Your task to perform on an android device: snooze an email in the gmail app Image 0: 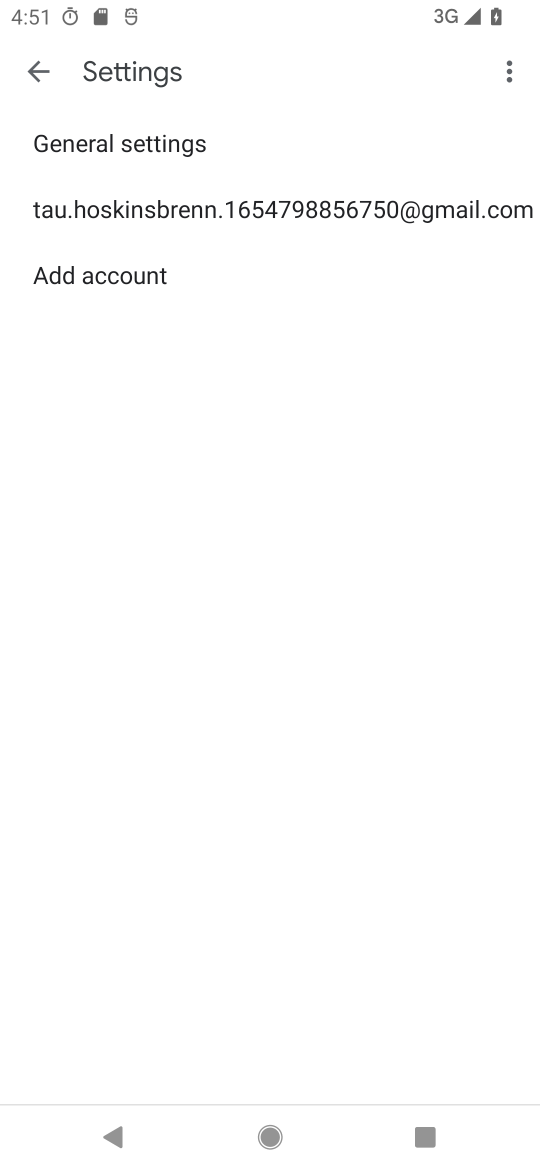
Step 0: press home button
Your task to perform on an android device: snooze an email in the gmail app Image 1: 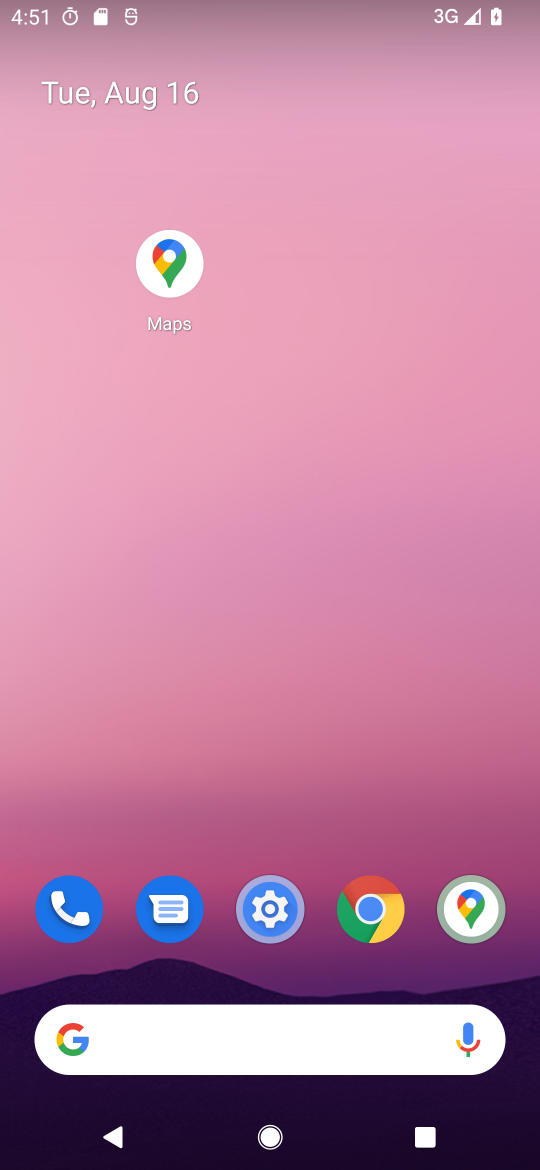
Step 1: drag from (263, 650) to (279, 79)
Your task to perform on an android device: snooze an email in the gmail app Image 2: 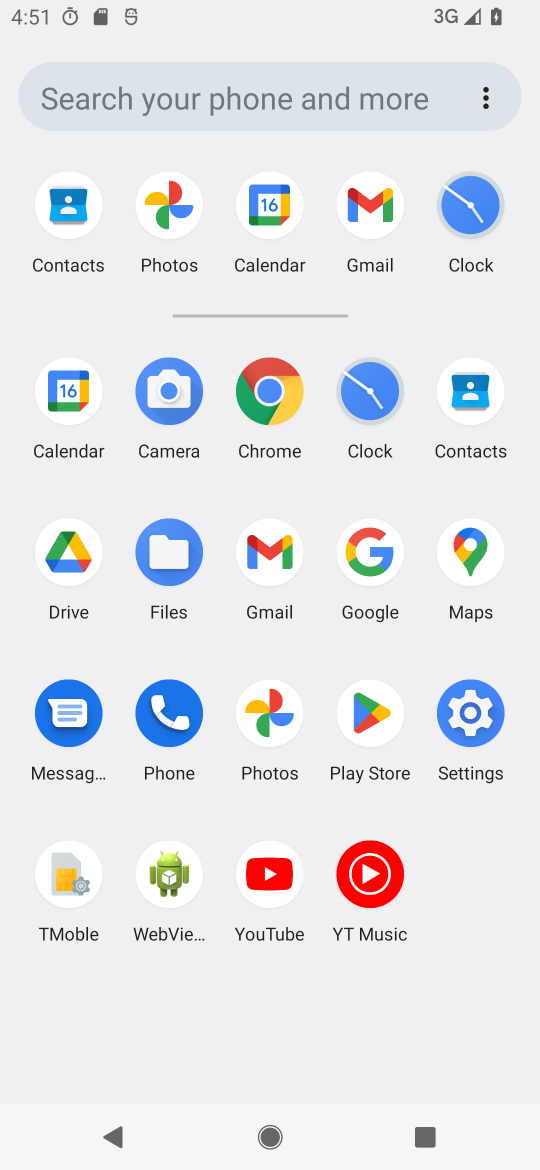
Step 2: click (369, 203)
Your task to perform on an android device: snooze an email in the gmail app Image 3: 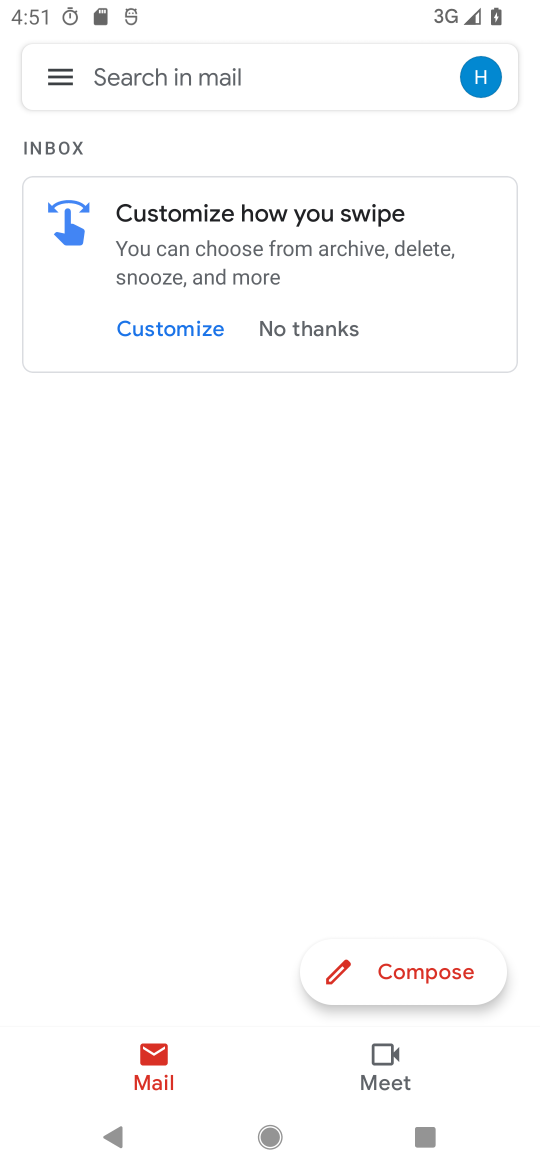
Step 3: click (51, 77)
Your task to perform on an android device: snooze an email in the gmail app Image 4: 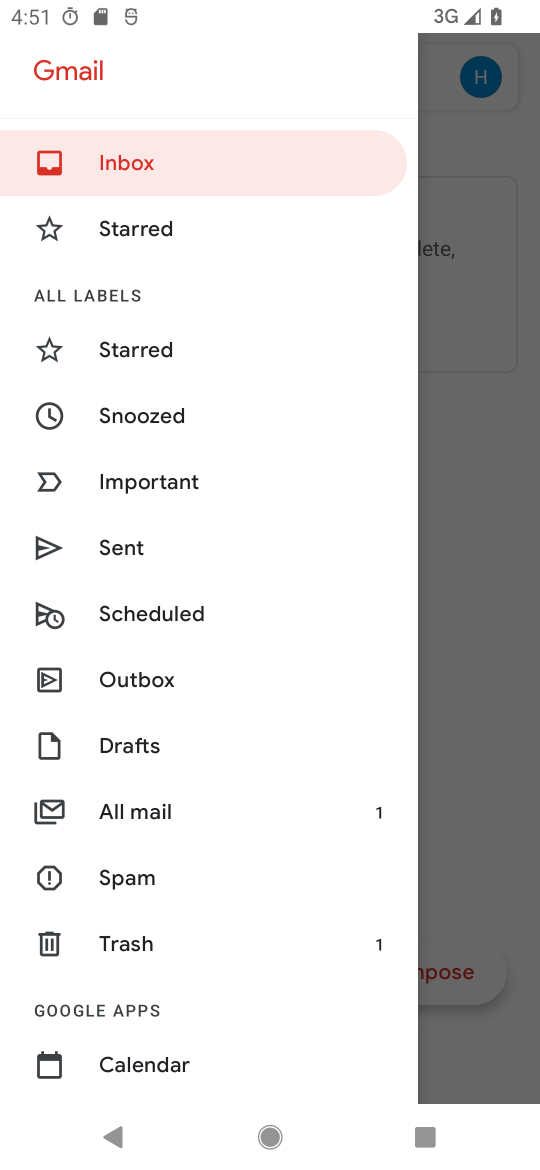
Step 4: click (186, 811)
Your task to perform on an android device: snooze an email in the gmail app Image 5: 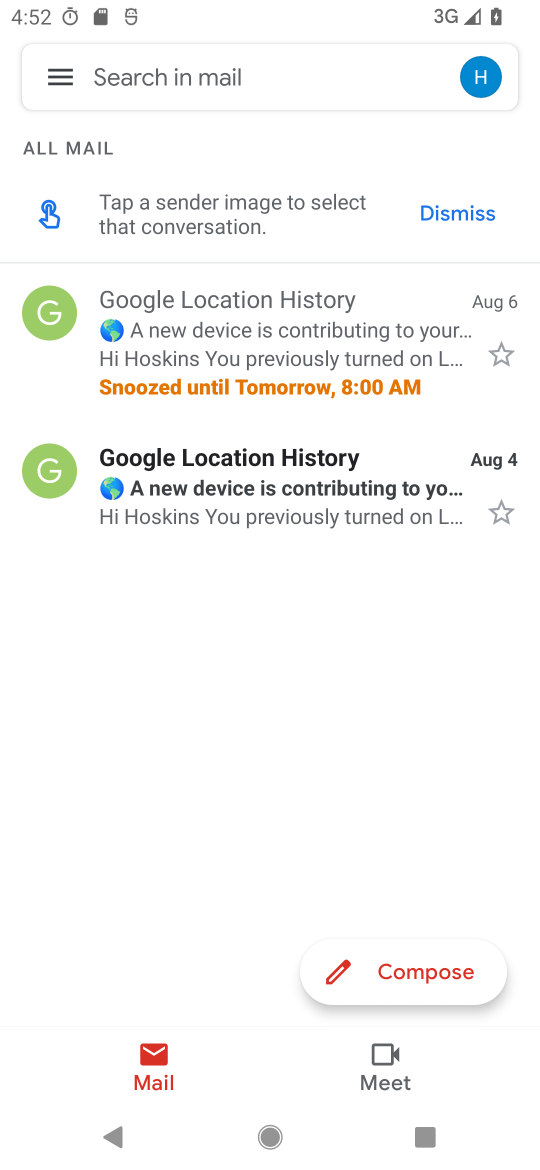
Step 5: click (355, 305)
Your task to perform on an android device: snooze an email in the gmail app Image 6: 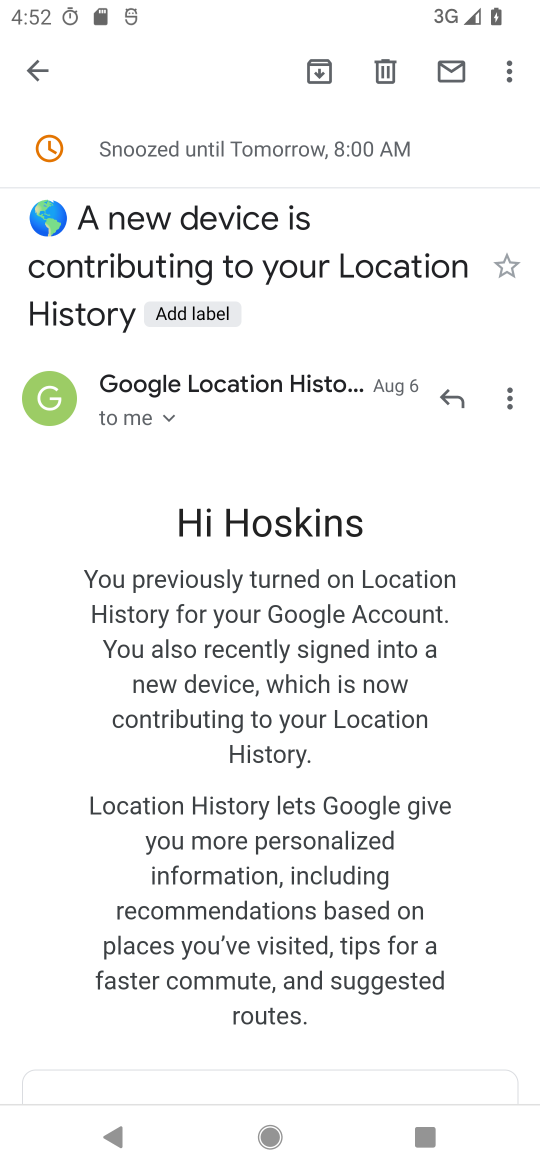
Step 6: click (506, 60)
Your task to perform on an android device: snooze an email in the gmail app Image 7: 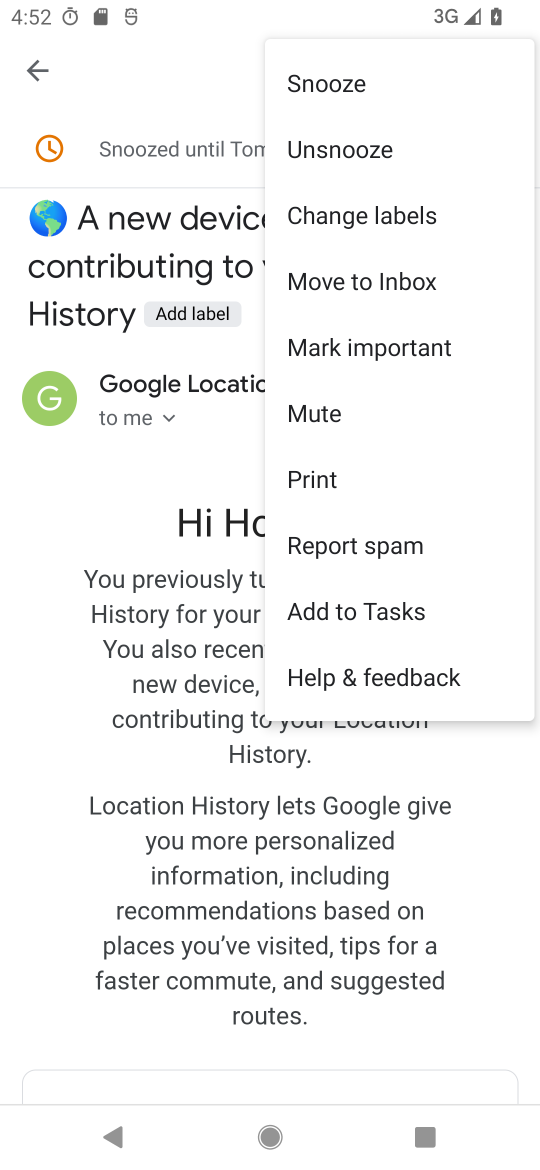
Step 7: click (379, 81)
Your task to perform on an android device: snooze an email in the gmail app Image 8: 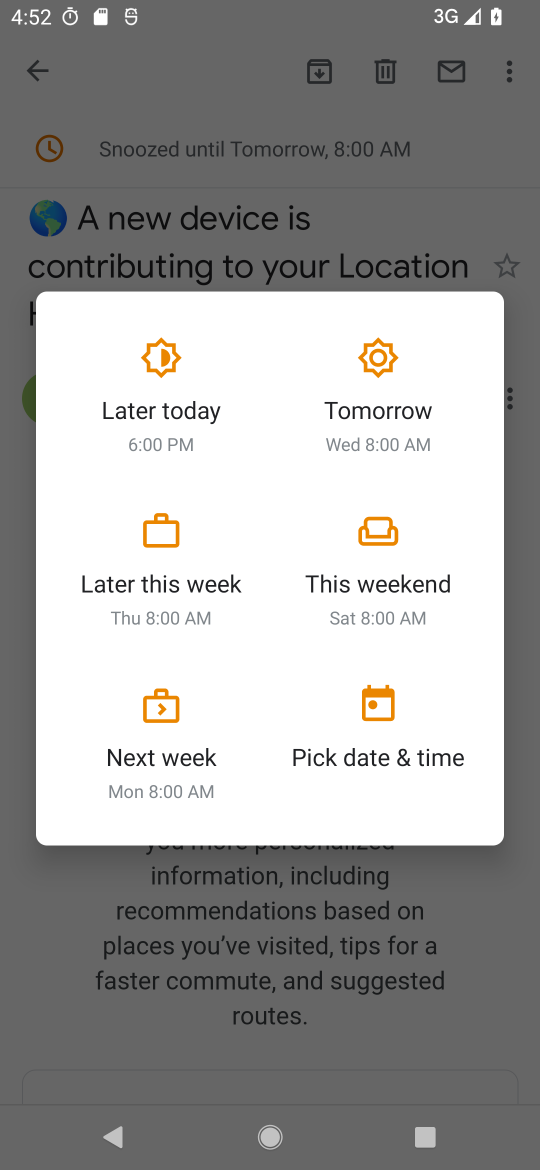
Step 8: click (381, 601)
Your task to perform on an android device: snooze an email in the gmail app Image 9: 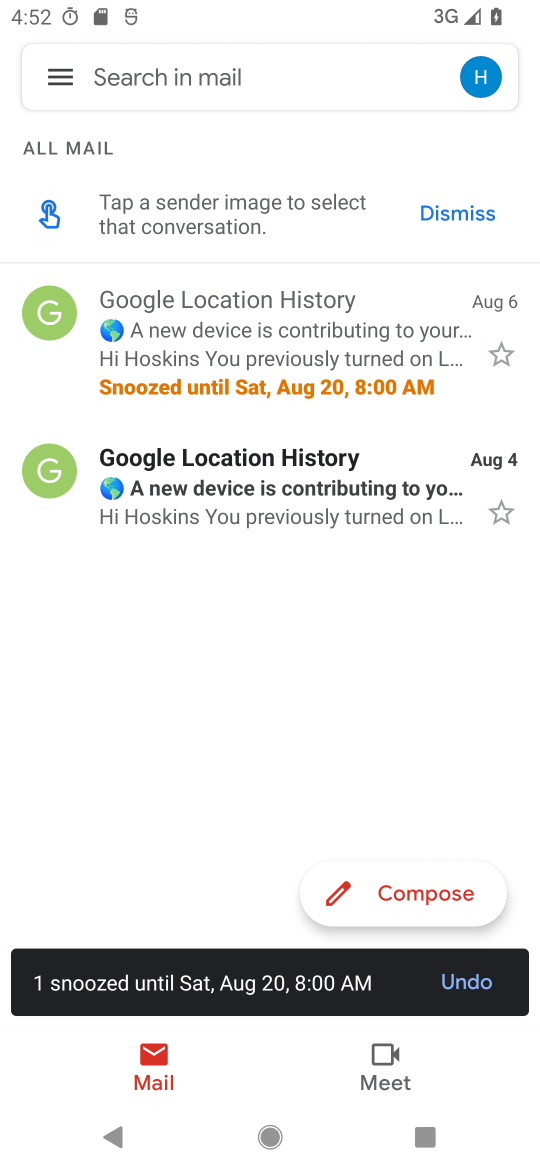
Step 9: task complete